Your task to perform on an android device: turn on priority inbox in the gmail app Image 0: 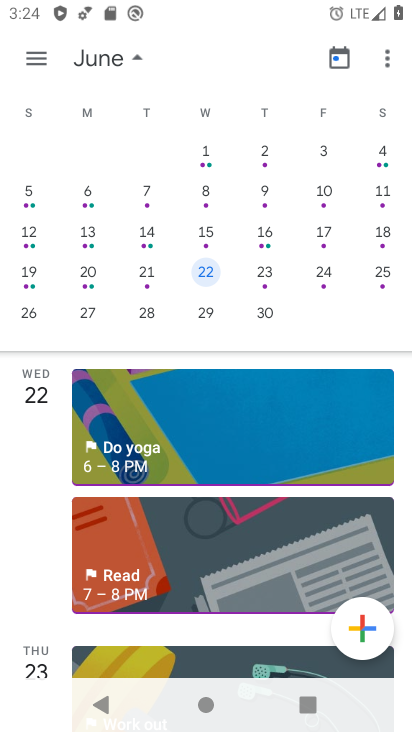
Step 0: press home button
Your task to perform on an android device: turn on priority inbox in the gmail app Image 1: 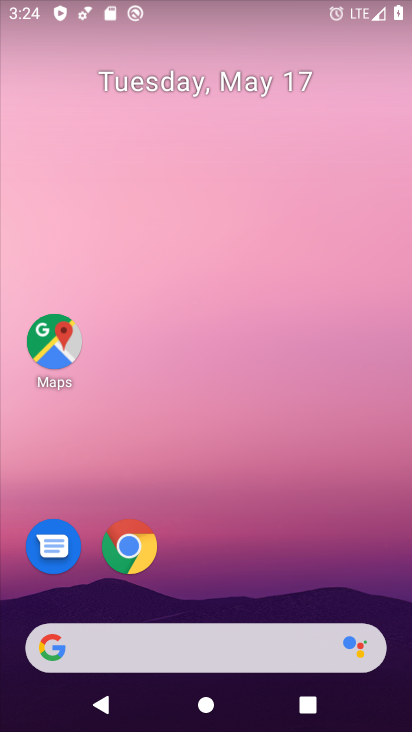
Step 1: drag from (271, 568) to (275, 62)
Your task to perform on an android device: turn on priority inbox in the gmail app Image 2: 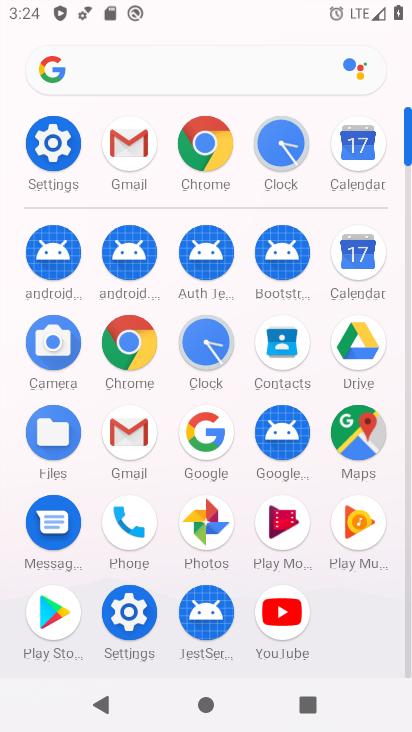
Step 2: click (126, 148)
Your task to perform on an android device: turn on priority inbox in the gmail app Image 3: 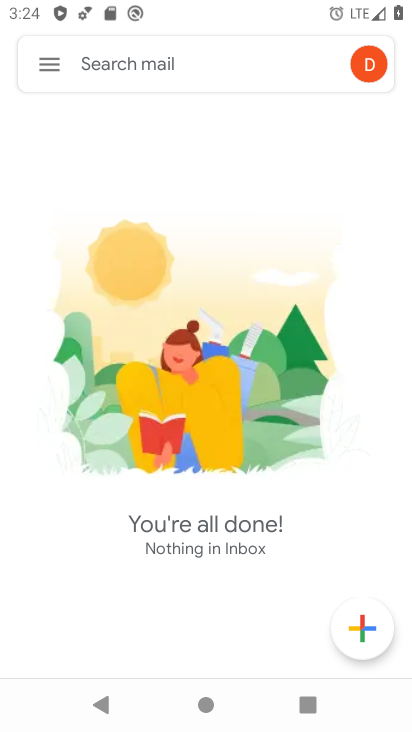
Step 3: click (44, 54)
Your task to perform on an android device: turn on priority inbox in the gmail app Image 4: 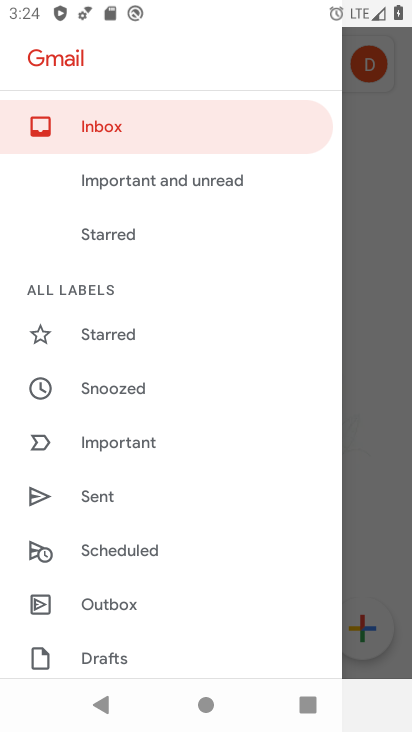
Step 4: drag from (175, 565) to (170, 12)
Your task to perform on an android device: turn on priority inbox in the gmail app Image 5: 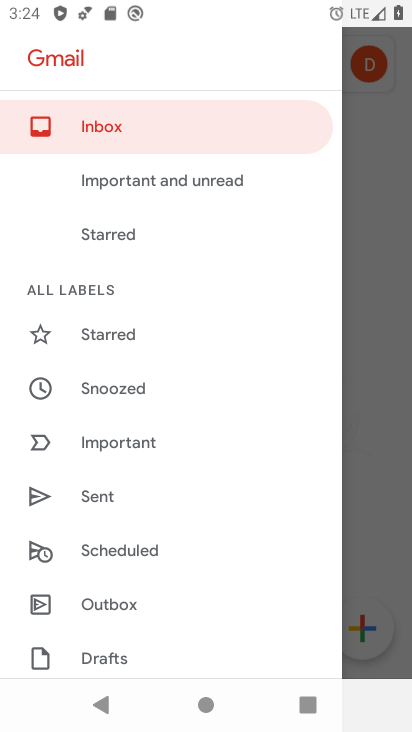
Step 5: drag from (89, 630) to (103, 196)
Your task to perform on an android device: turn on priority inbox in the gmail app Image 6: 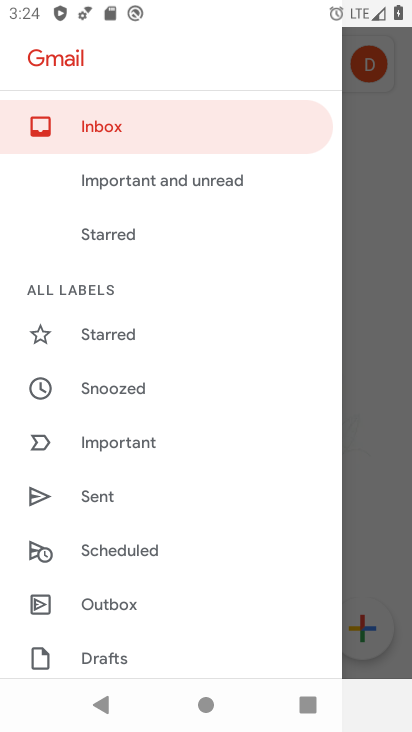
Step 6: drag from (104, 610) to (149, 201)
Your task to perform on an android device: turn on priority inbox in the gmail app Image 7: 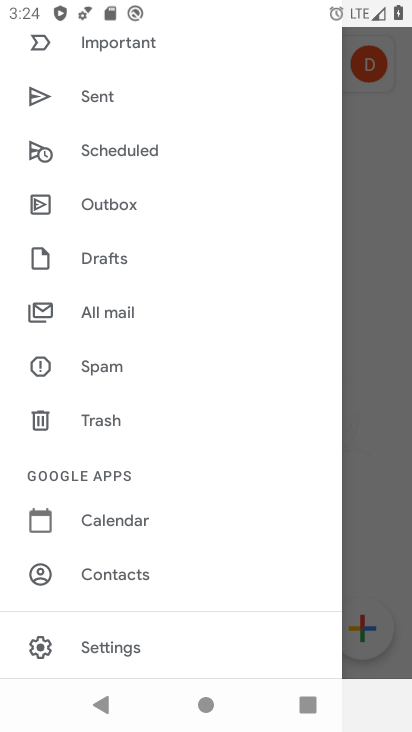
Step 7: click (109, 647)
Your task to perform on an android device: turn on priority inbox in the gmail app Image 8: 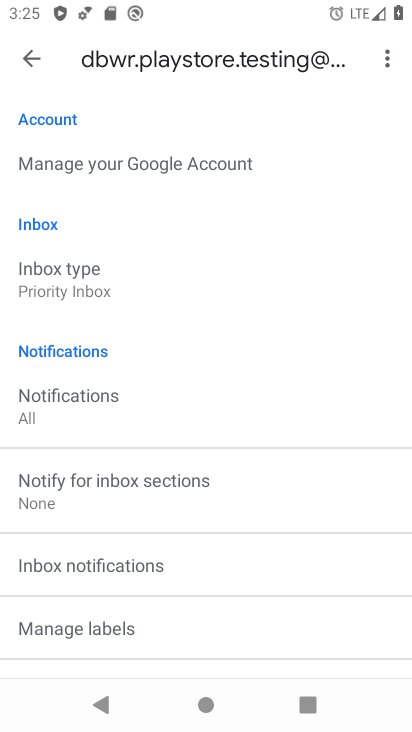
Step 8: click (92, 272)
Your task to perform on an android device: turn on priority inbox in the gmail app Image 9: 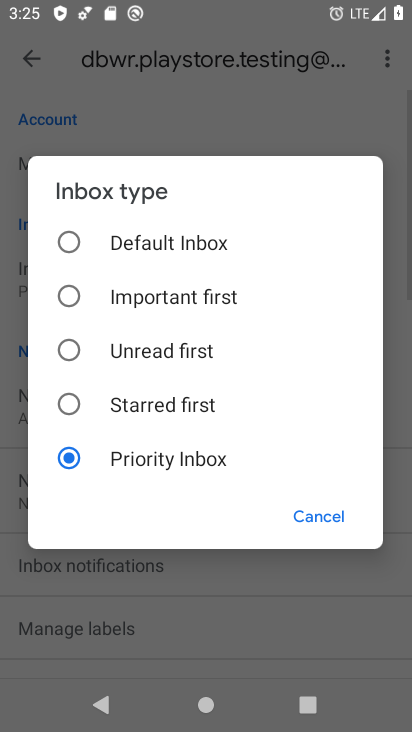
Step 9: click (76, 467)
Your task to perform on an android device: turn on priority inbox in the gmail app Image 10: 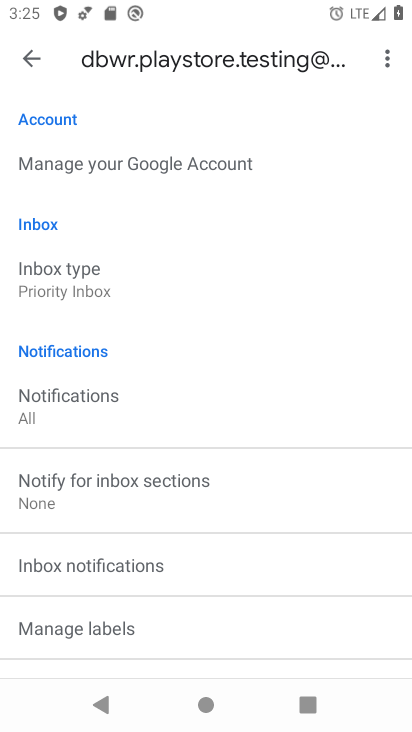
Step 10: task complete